Your task to perform on an android device: refresh tabs in the chrome app Image 0: 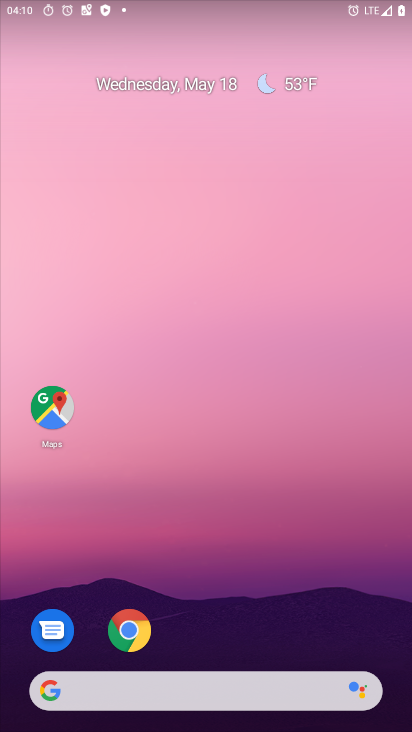
Step 0: click (132, 632)
Your task to perform on an android device: refresh tabs in the chrome app Image 1: 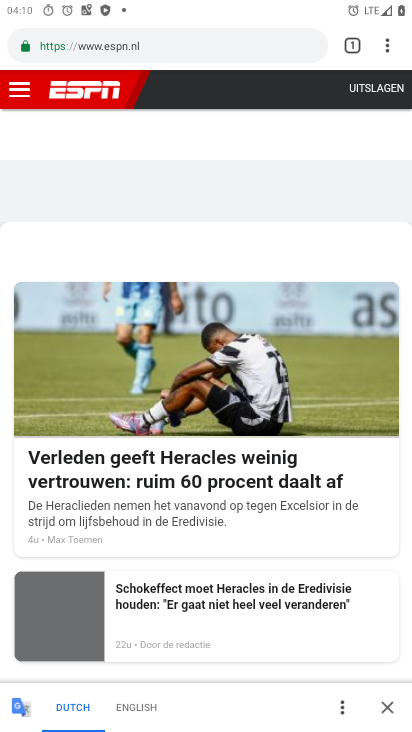
Step 1: click (388, 48)
Your task to perform on an android device: refresh tabs in the chrome app Image 2: 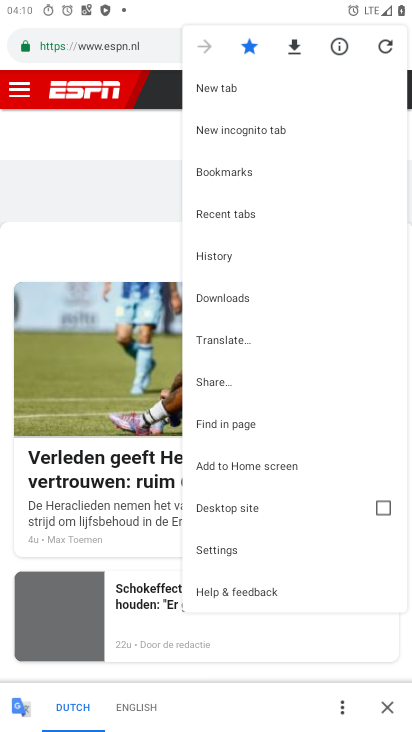
Step 2: click (382, 39)
Your task to perform on an android device: refresh tabs in the chrome app Image 3: 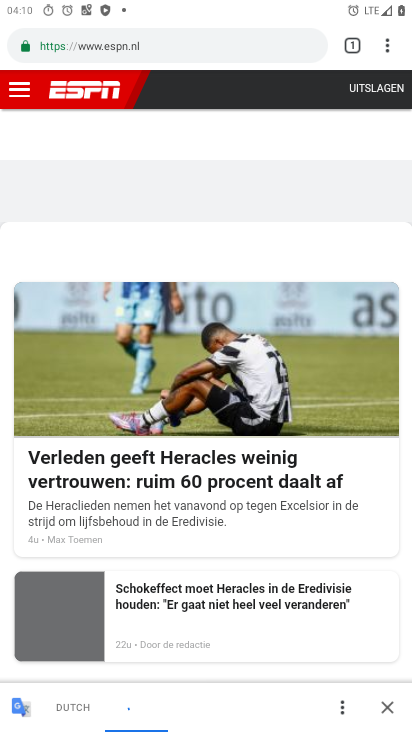
Step 3: task complete